Your task to perform on an android device: Open calendar and show me the fourth week of next month Image 0: 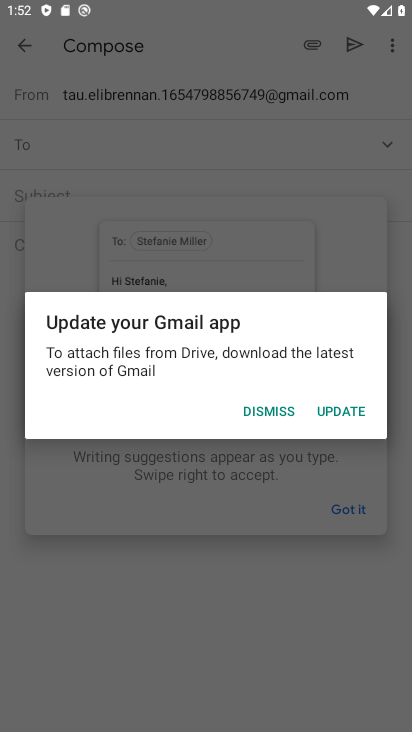
Step 0: press home button
Your task to perform on an android device: Open calendar and show me the fourth week of next month Image 1: 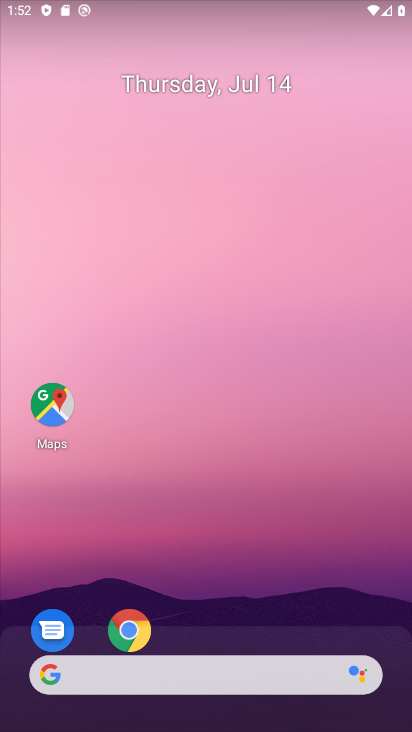
Step 1: drag from (261, 294) to (266, 226)
Your task to perform on an android device: Open calendar and show me the fourth week of next month Image 2: 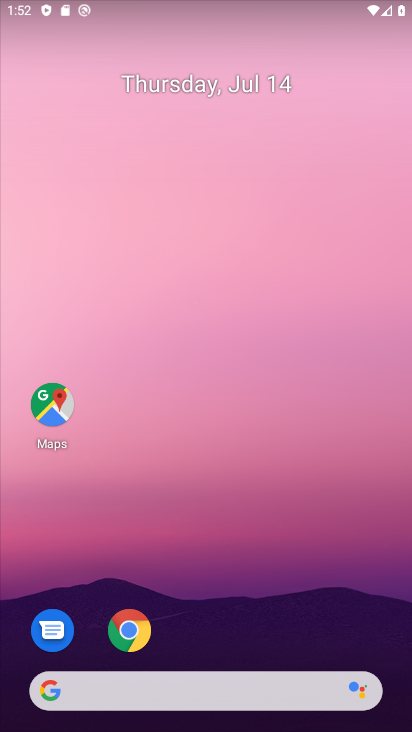
Step 2: drag from (195, 619) to (260, 192)
Your task to perform on an android device: Open calendar and show me the fourth week of next month Image 3: 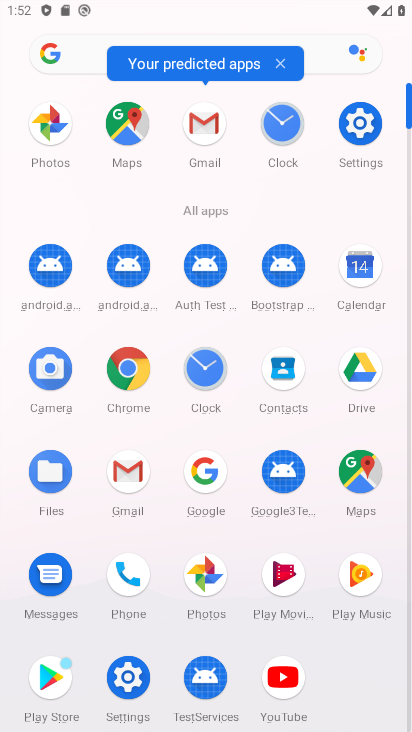
Step 3: click (349, 265)
Your task to perform on an android device: Open calendar and show me the fourth week of next month Image 4: 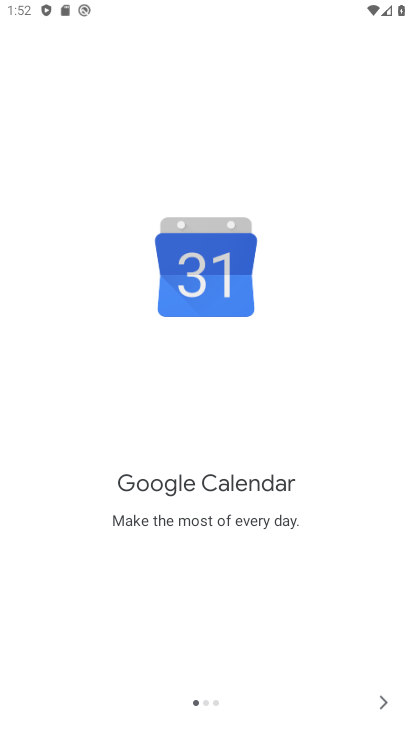
Step 4: click (378, 697)
Your task to perform on an android device: Open calendar and show me the fourth week of next month Image 5: 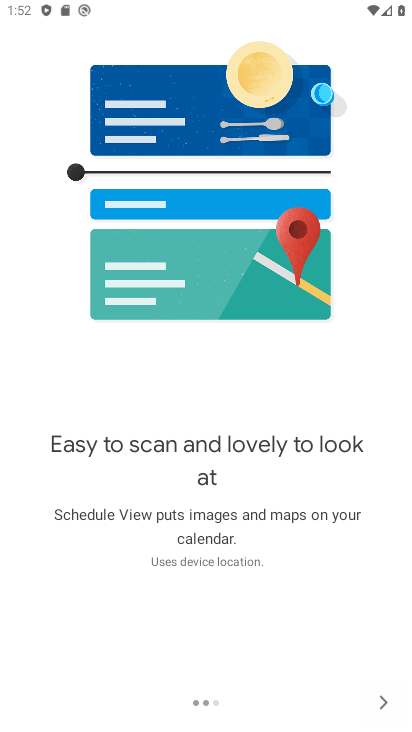
Step 5: click (369, 690)
Your task to perform on an android device: Open calendar and show me the fourth week of next month Image 6: 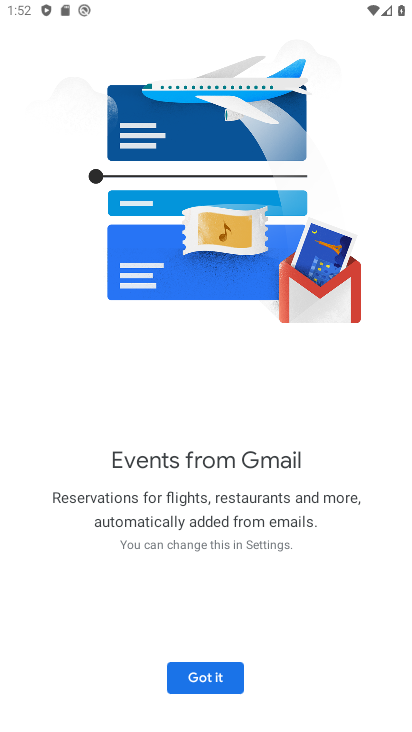
Step 6: click (227, 686)
Your task to perform on an android device: Open calendar and show me the fourth week of next month Image 7: 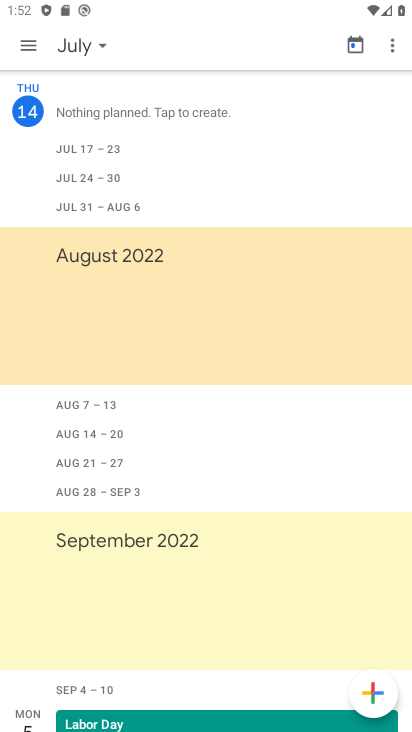
Step 7: click (87, 52)
Your task to perform on an android device: Open calendar and show me the fourth week of next month Image 8: 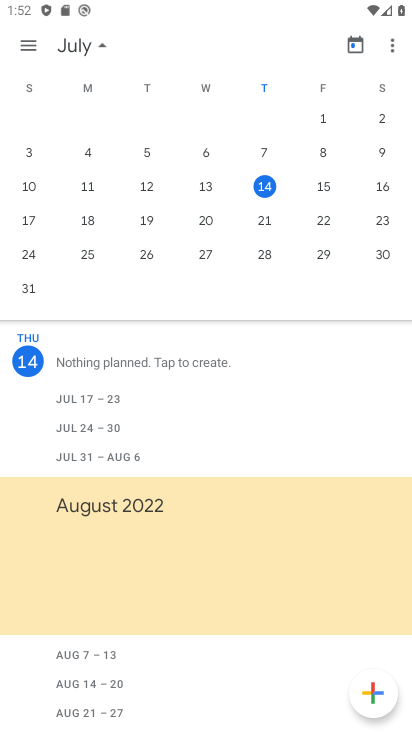
Step 8: drag from (374, 199) to (12, 209)
Your task to perform on an android device: Open calendar and show me the fourth week of next month Image 9: 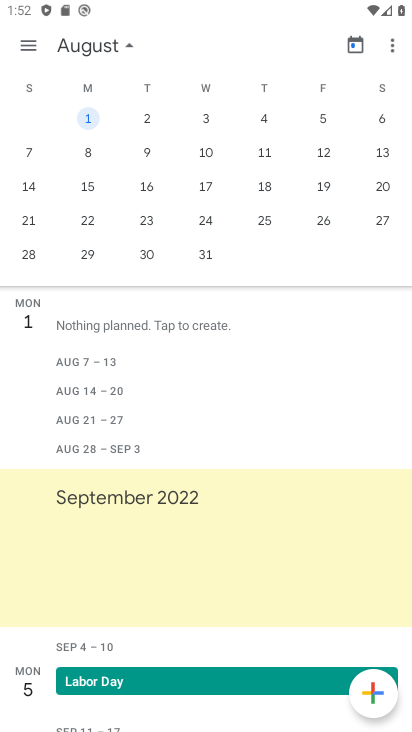
Step 9: click (30, 43)
Your task to perform on an android device: Open calendar and show me the fourth week of next month Image 10: 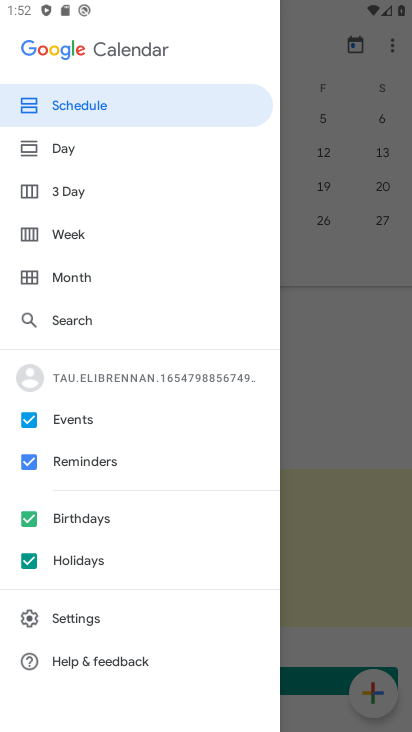
Step 10: click (102, 244)
Your task to perform on an android device: Open calendar and show me the fourth week of next month Image 11: 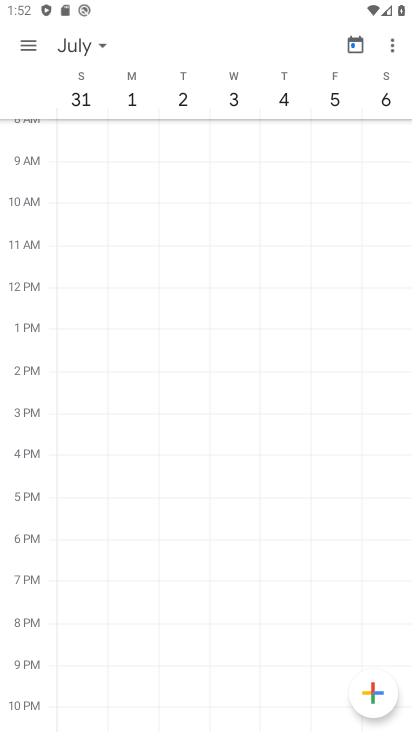
Step 11: task complete